Your task to perform on an android device: visit the assistant section in the google photos Image 0: 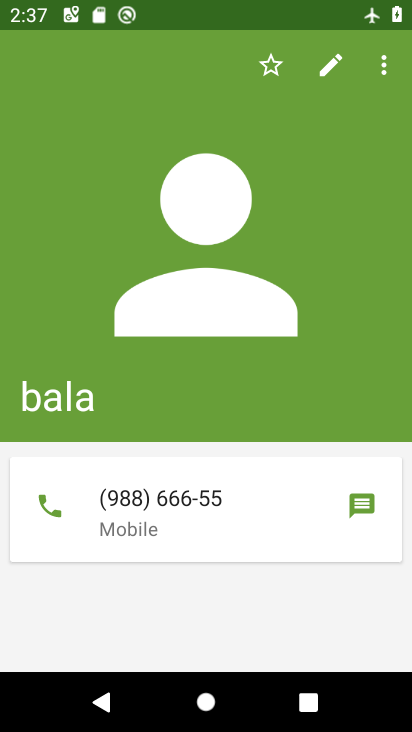
Step 0: press home button
Your task to perform on an android device: visit the assistant section in the google photos Image 1: 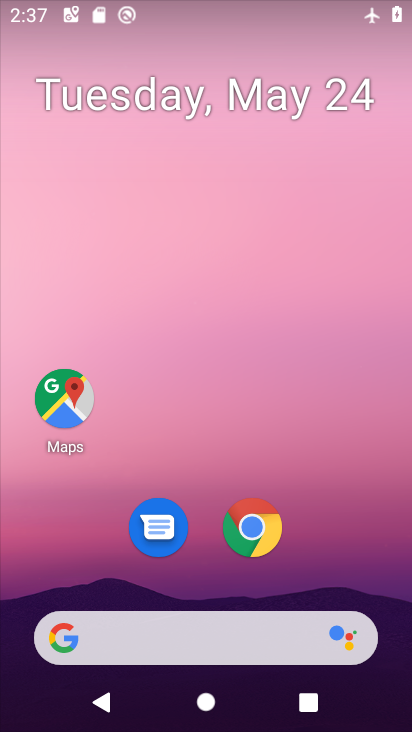
Step 1: drag from (381, 610) to (380, 18)
Your task to perform on an android device: visit the assistant section in the google photos Image 2: 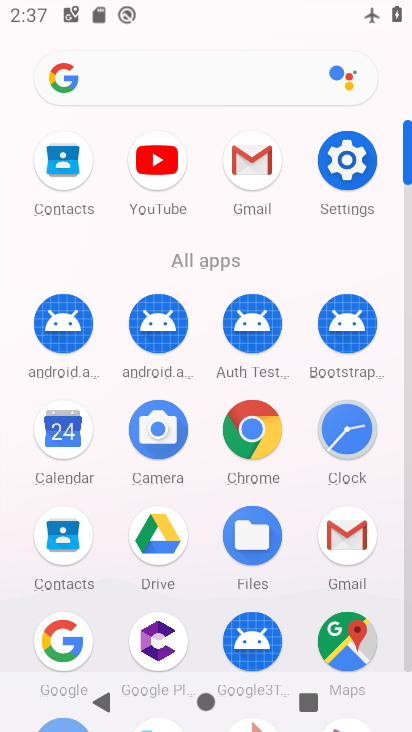
Step 2: click (408, 629)
Your task to perform on an android device: visit the assistant section in the google photos Image 3: 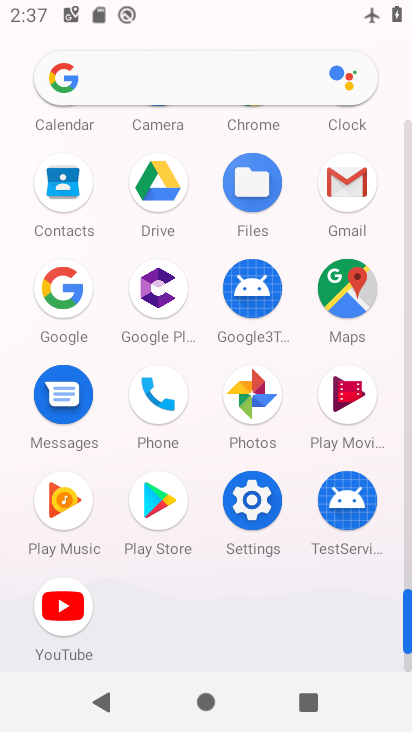
Step 3: click (251, 402)
Your task to perform on an android device: visit the assistant section in the google photos Image 4: 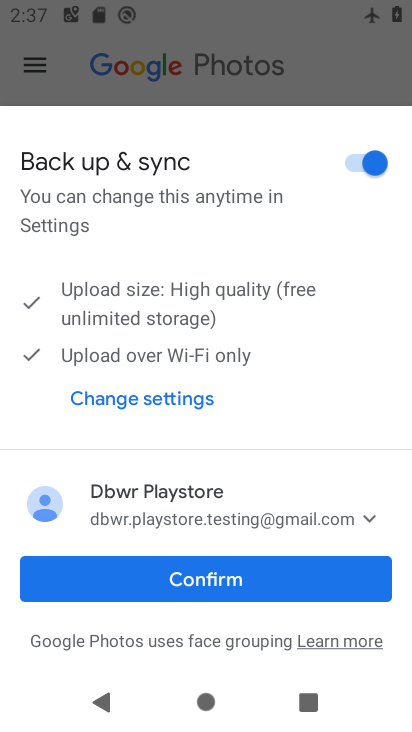
Step 4: click (188, 574)
Your task to perform on an android device: visit the assistant section in the google photos Image 5: 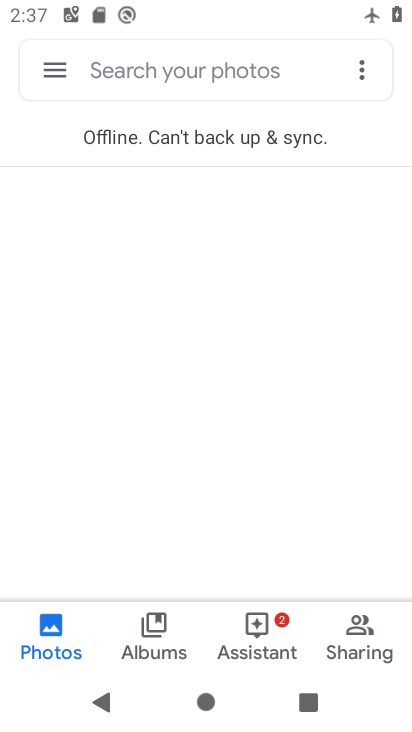
Step 5: click (245, 646)
Your task to perform on an android device: visit the assistant section in the google photos Image 6: 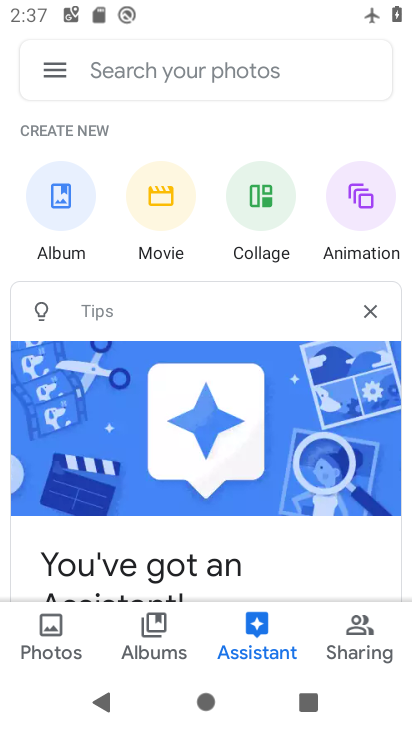
Step 6: task complete